Your task to perform on an android device: open app "Grab" (install if not already installed), go to login, and select forgot password Image 0: 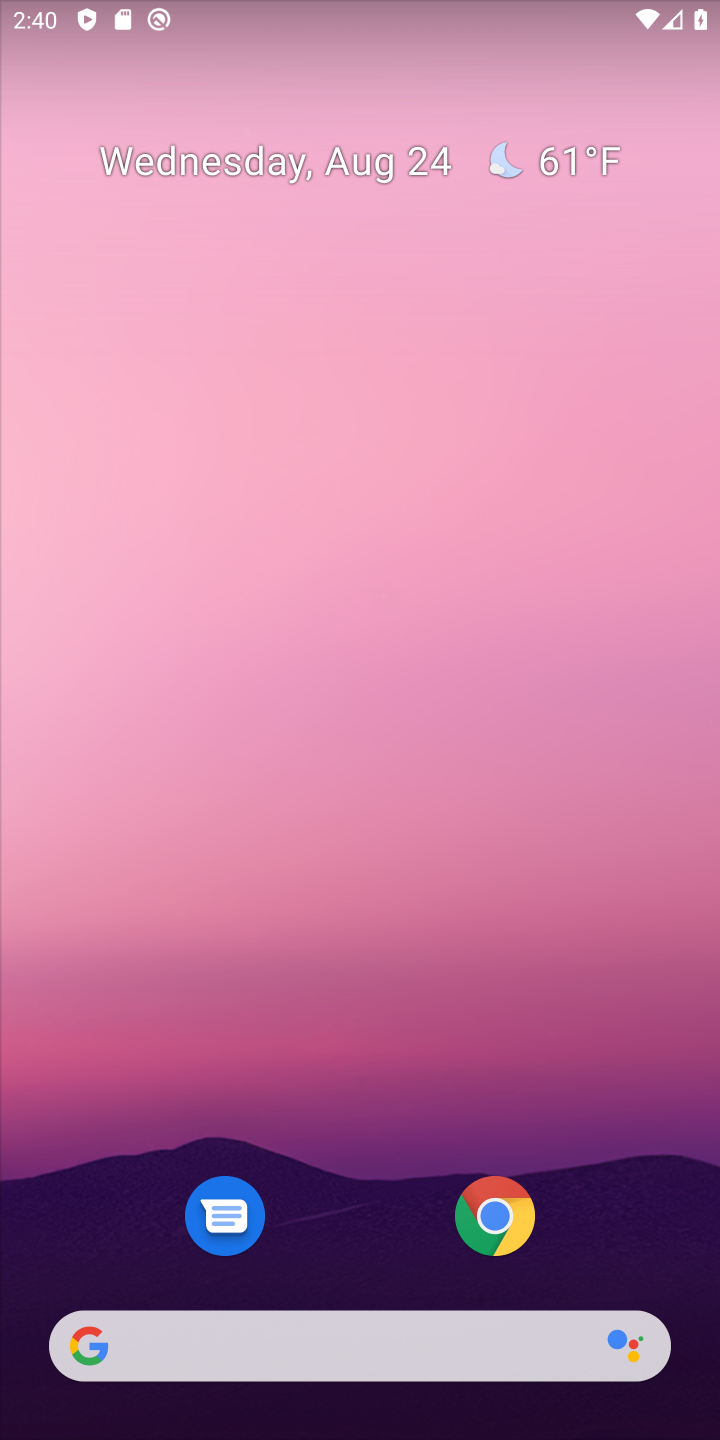
Step 0: press home button
Your task to perform on an android device: open app "Grab" (install if not already installed), go to login, and select forgot password Image 1: 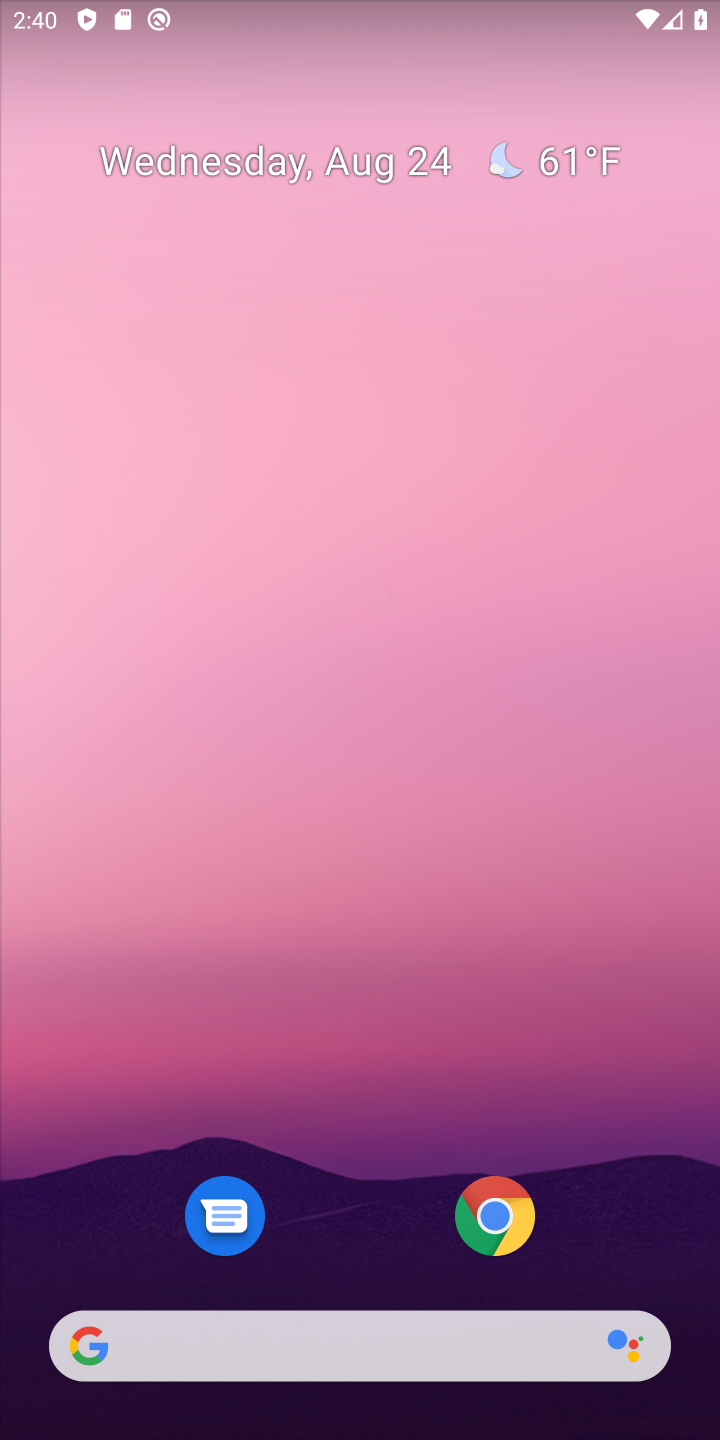
Step 1: drag from (600, 914) to (551, 167)
Your task to perform on an android device: open app "Grab" (install if not already installed), go to login, and select forgot password Image 2: 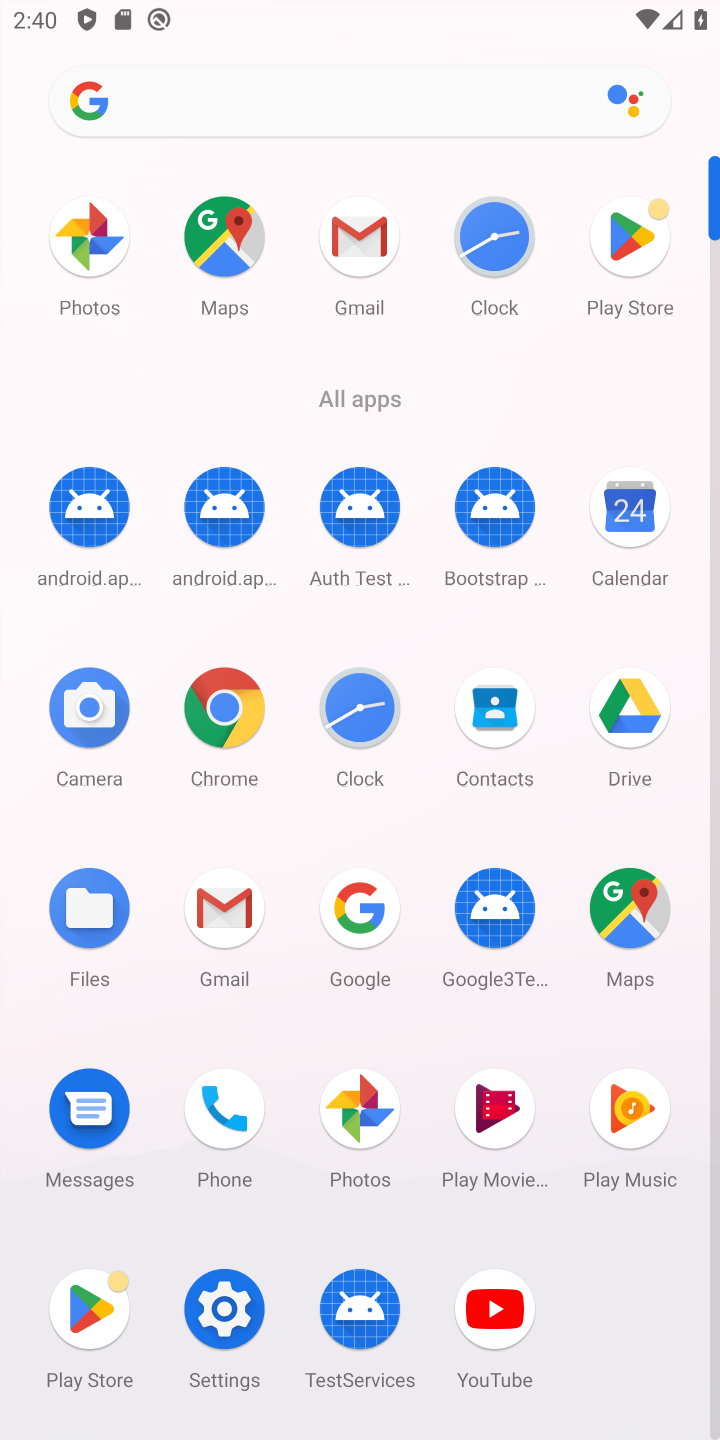
Step 2: click (632, 232)
Your task to perform on an android device: open app "Grab" (install if not already installed), go to login, and select forgot password Image 3: 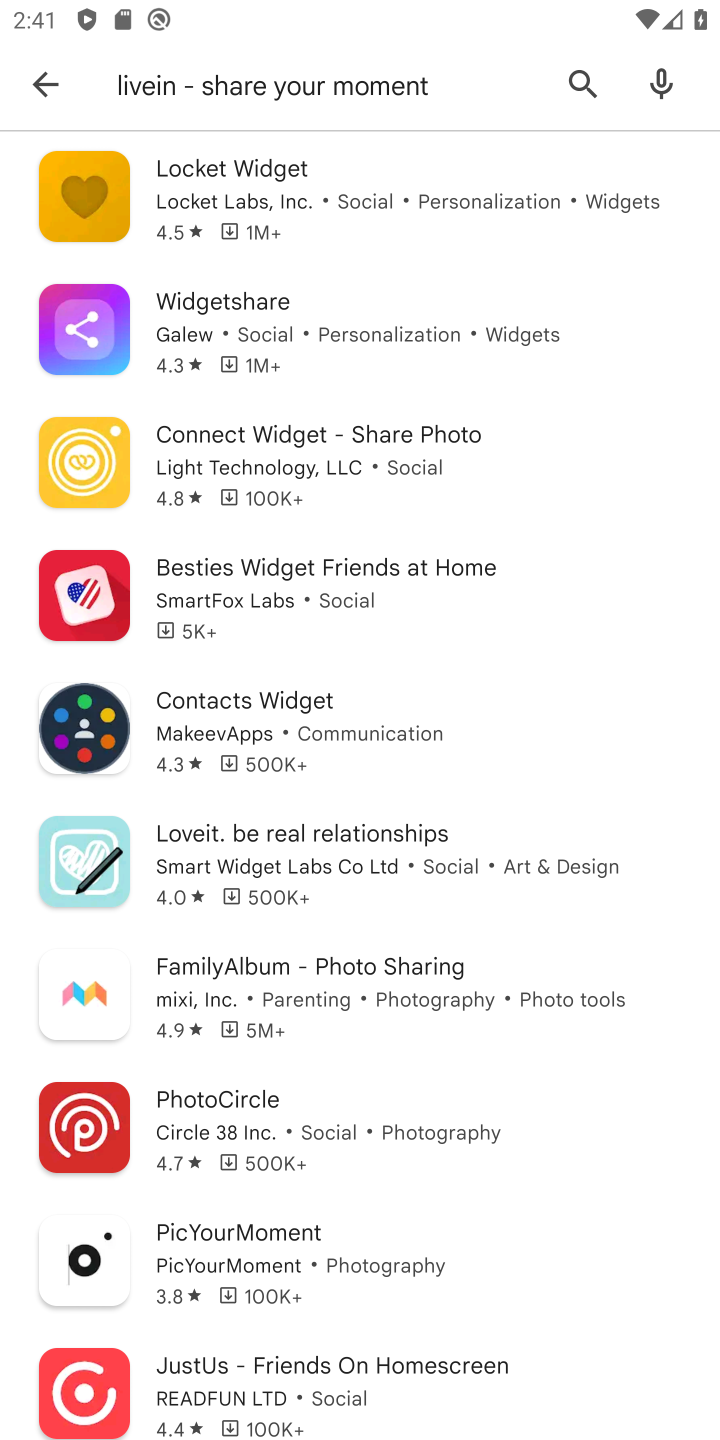
Step 3: press back button
Your task to perform on an android device: open app "Grab" (install if not already installed), go to login, and select forgot password Image 4: 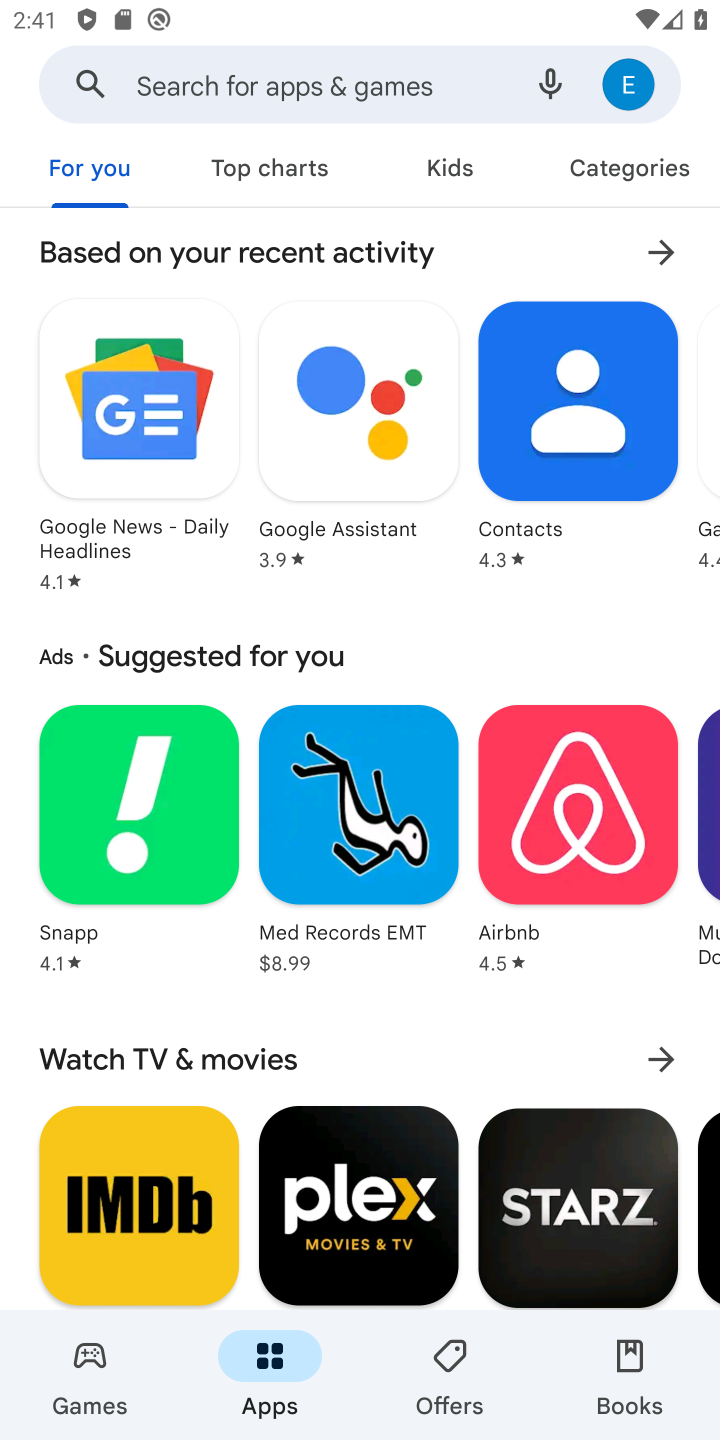
Step 4: click (299, 83)
Your task to perform on an android device: open app "Grab" (install if not already installed), go to login, and select forgot password Image 5: 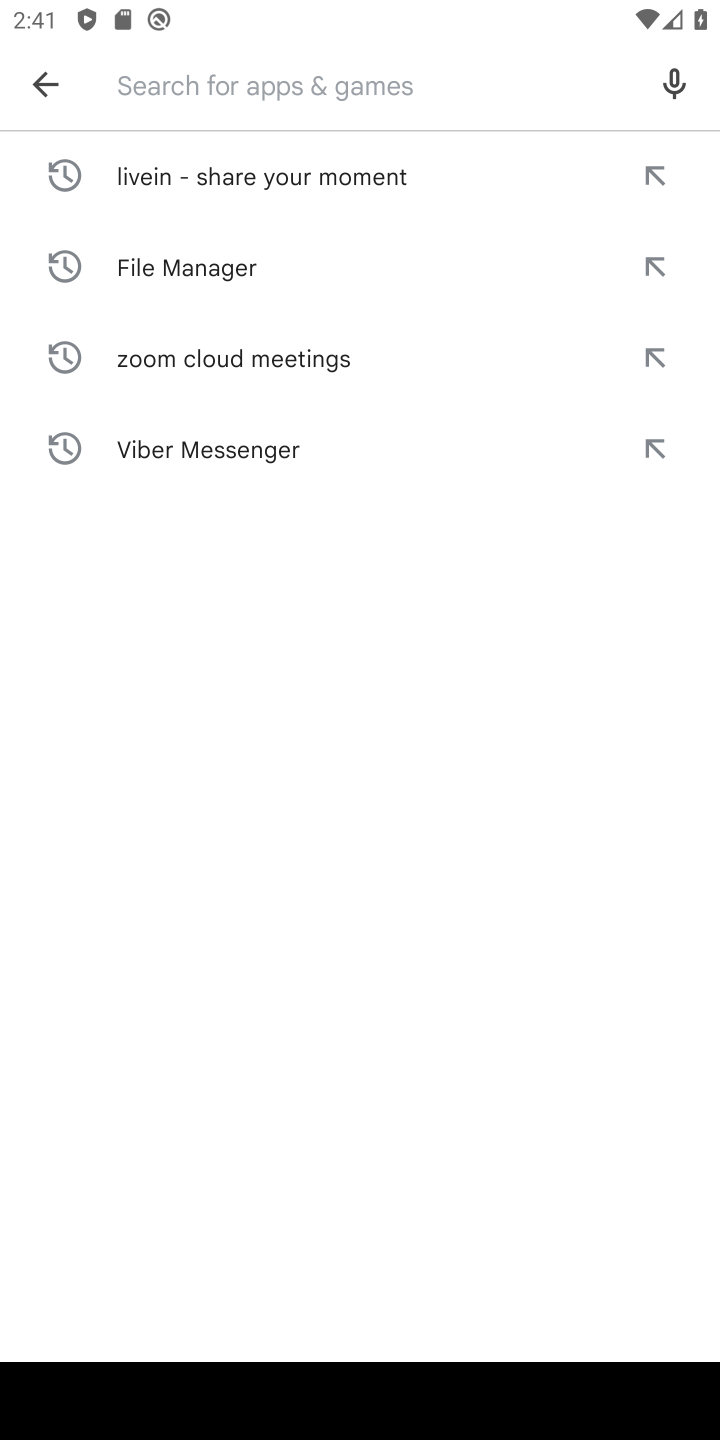
Step 5: press enter
Your task to perform on an android device: open app "Grab" (install if not already installed), go to login, and select forgot password Image 6: 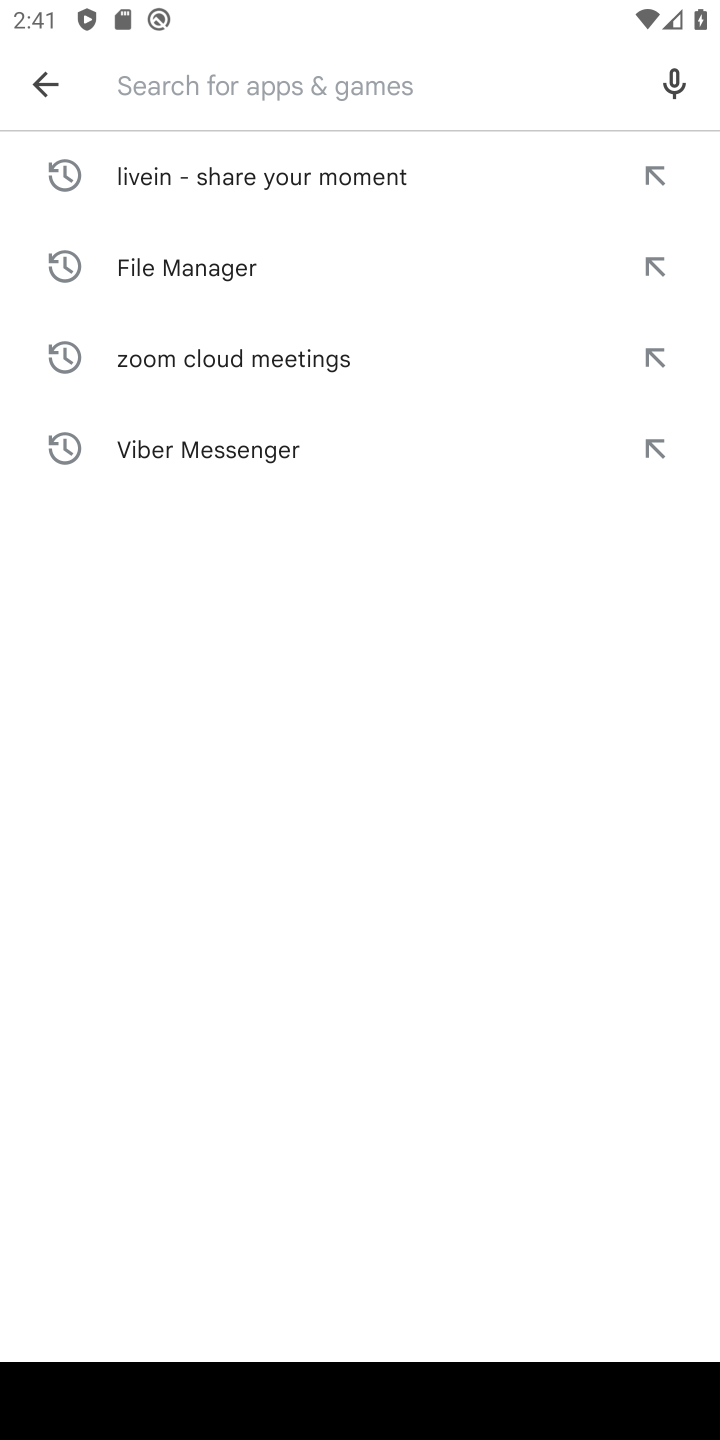
Step 6: type "grab"
Your task to perform on an android device: open app "Grab" (install if not already installed), go to login, and select forgot password Image 7: 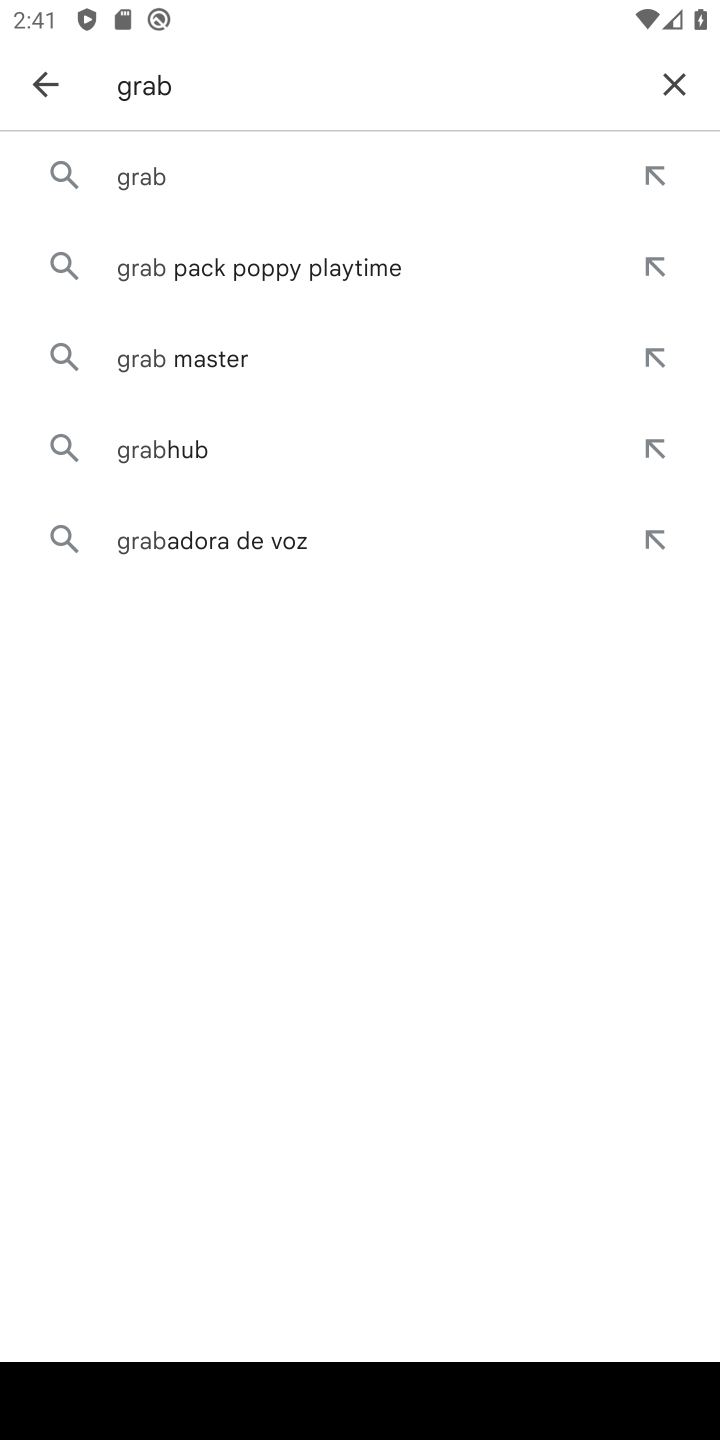
Step 7: click (140, 184)
Your task to perform on an android device: open app "Grab" (install if not already installed), go to login, and select forgot password Image 8: 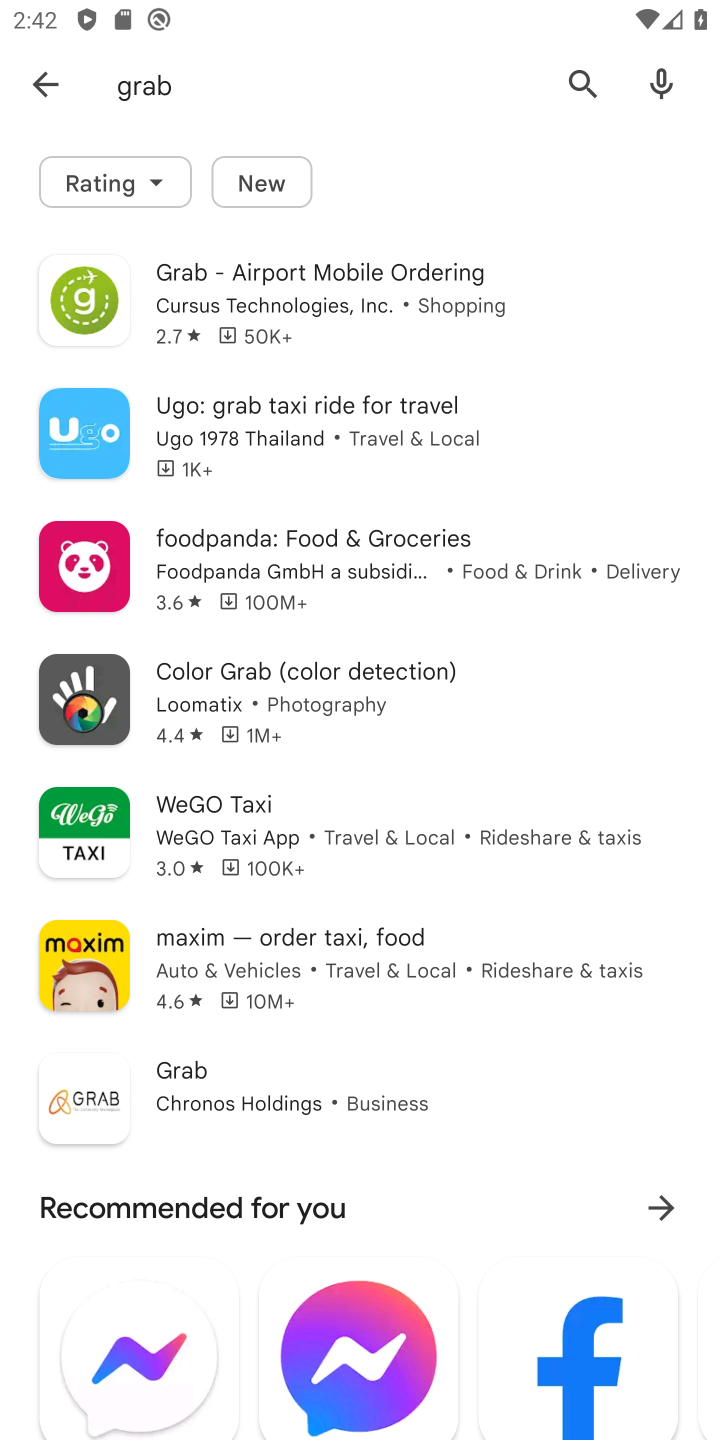
Step 8: task complete